Your task to perform on an android device: toggle notification dots Image 0: 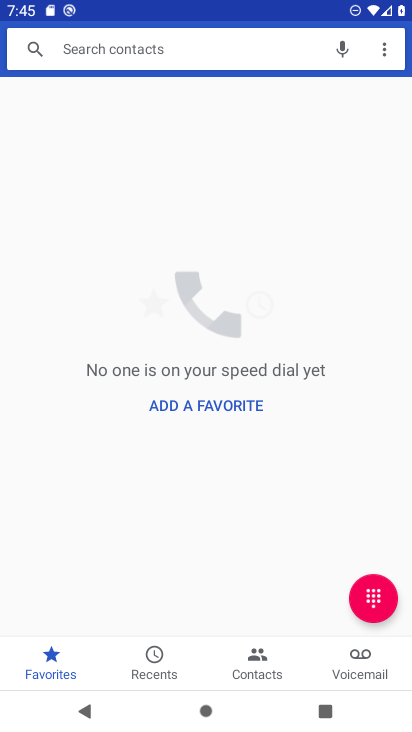
Step 0: press home button
Your task to perform on an android device: toggle notification dots Image 1: 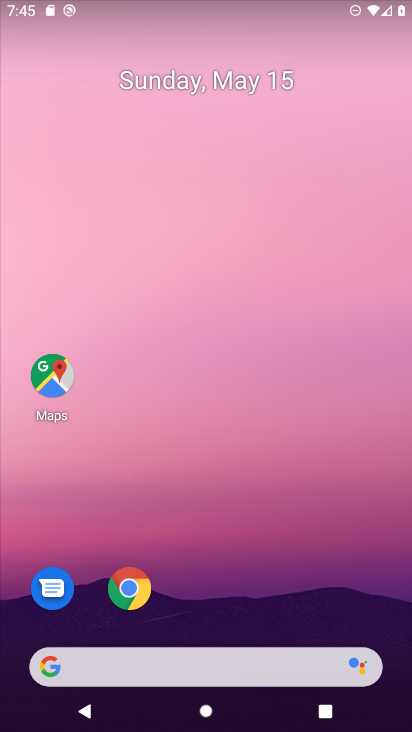
Step 1: drag from (229, 628) to (242, 72)
Your task to perform on an android device: toggle notification dots Image 2: 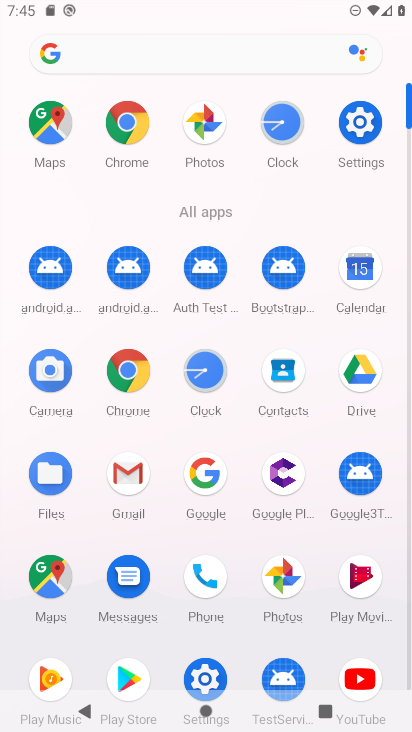
Step 2: click (357, 115)
Your task to perform on an android device: toggle notification dots Image 3: 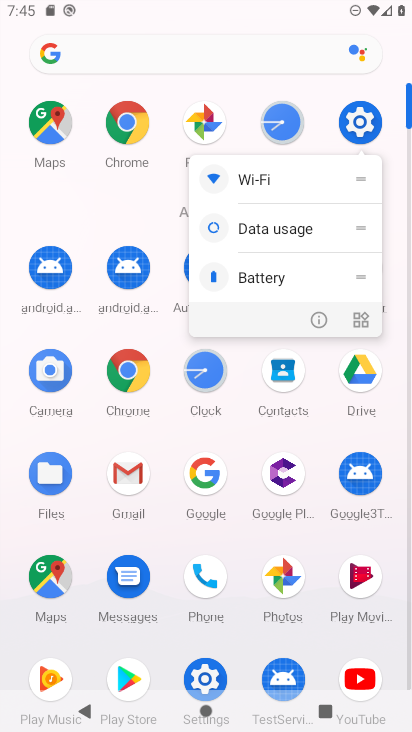
Step 3: click (358, 115)
Your task to perform on an android device: toggle notification dots Image 4: 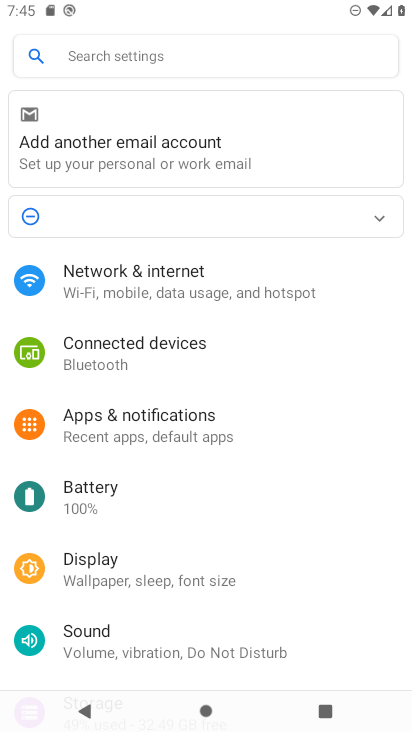
Step 4: click (128, 54)
Your task to perform on an android device: toggle notification dots Image 5: 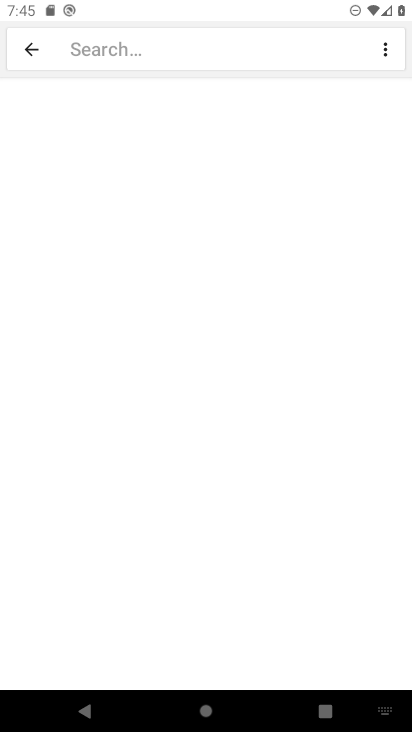
Step 5: type "flashlight"
Your task to perform on an android device: toggle notification dots Image 6: 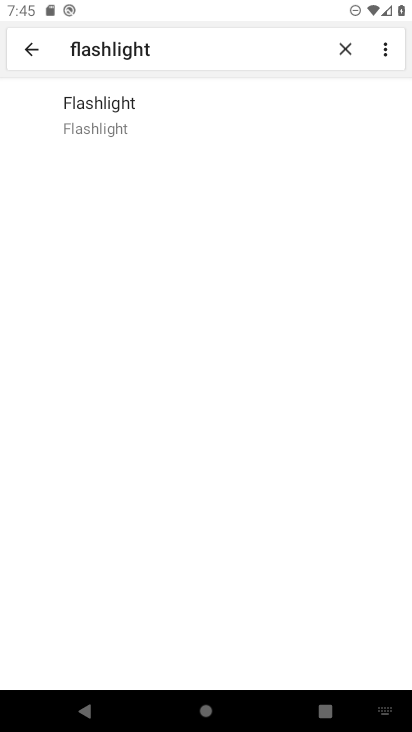
Step 6: click (116, 112)
Your task to perform on an android device: toggle notification dots Image 7: 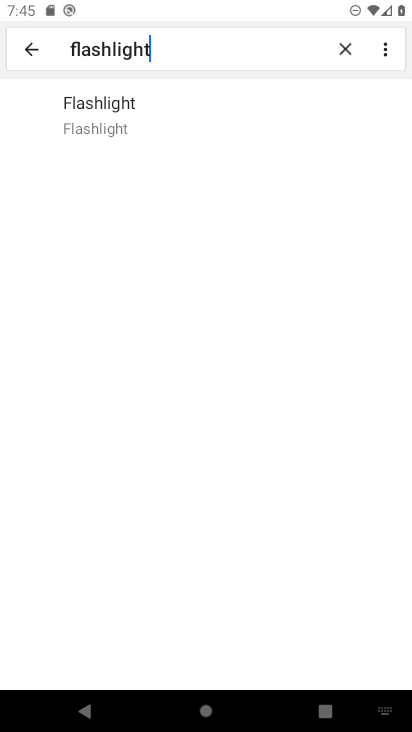
Step 7: task complete